Your task to perform on an android device: Turn off the flashlight Image 0: 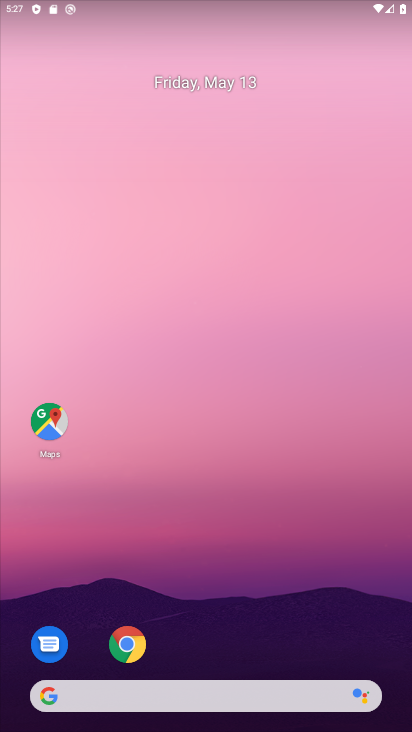
Step 0: drag from (225, 631) to (304, 0)
Your task to perform on an android device: Turn off the flashlight Image 1: 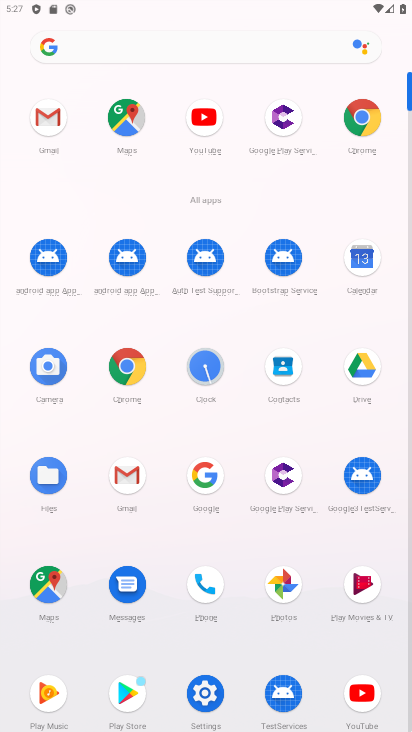
Step 1: click (209, 696)
Your task to perform on an android device: Turn off the flashlight Image 2: 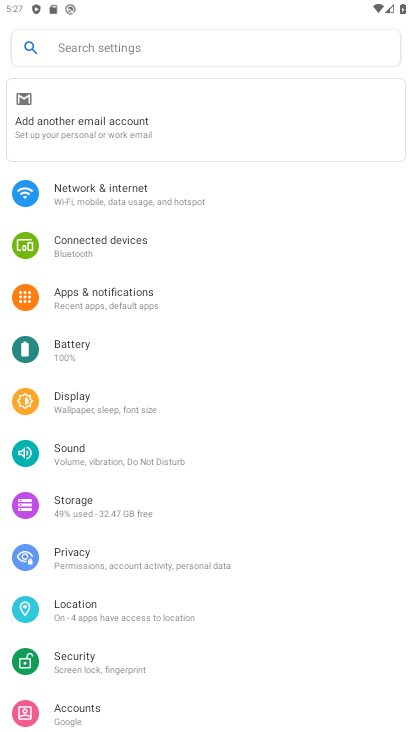
Step 2: click (182, 48)
Your task to perform on an android device: Turn off the flashlight Image 3: 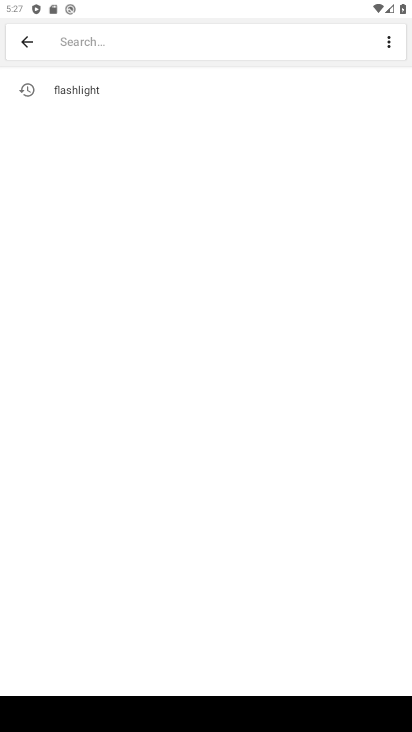
Step 3: type "flashlight"
Your task to perform on an android device: Turn off the flashlight Image 4: 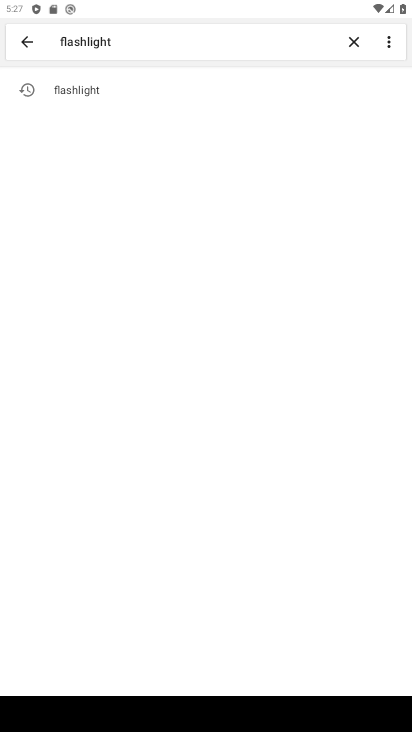
Step 4: click (90, 96)
Your task to perform on an android device: Turn off the flashlight Image 5: 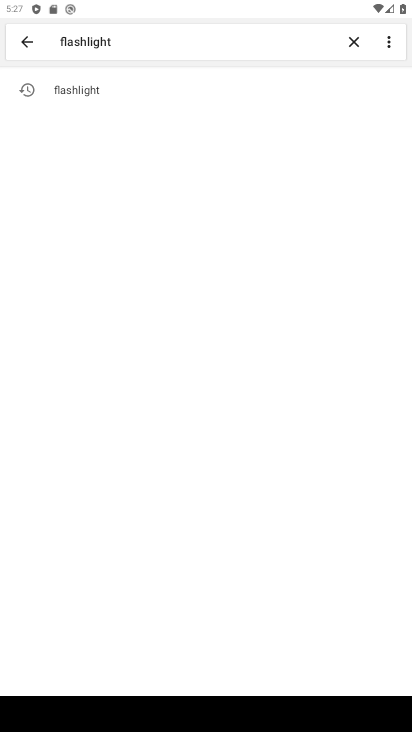
Step 5: click (98, 96)
Your task to perform on an android device: Turn off the flashlight Image 6: 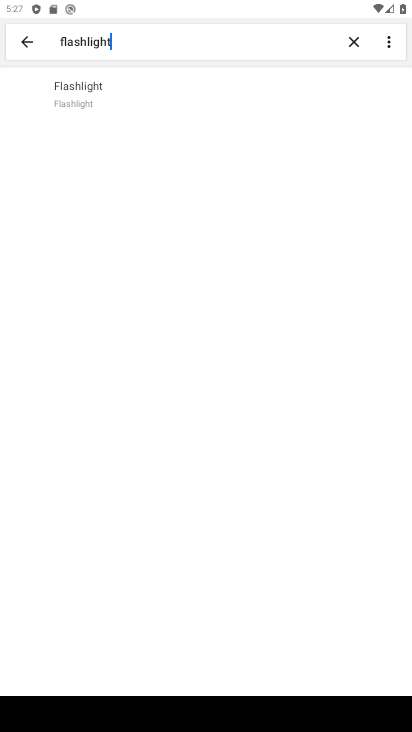
Step 6: task complete